Your task to perform on an android device: open a new tab in the chrome app Image 0: 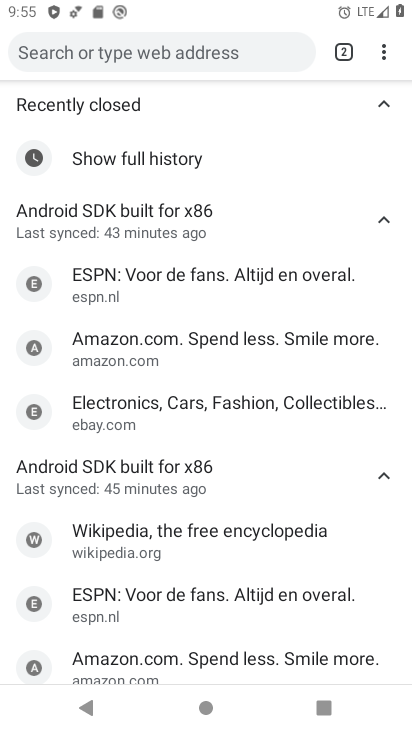
Step 0: press home button
Your task to perform on an android device: open a new tab in the chrome app Image 1: 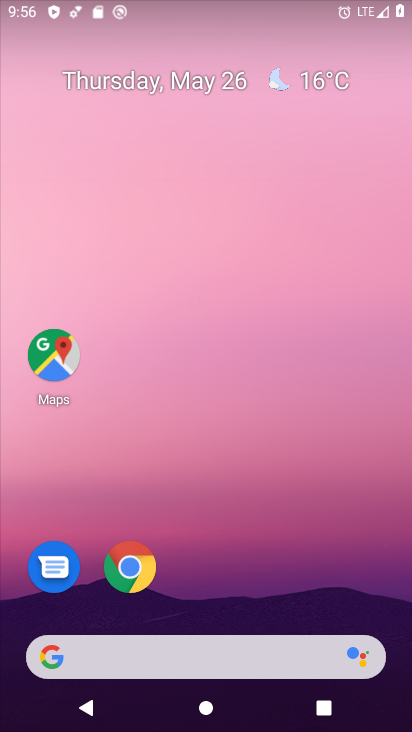
Step 1: click (130, 561)
Your task to perform on an android device: open a new tab in the chrome app Image 2: 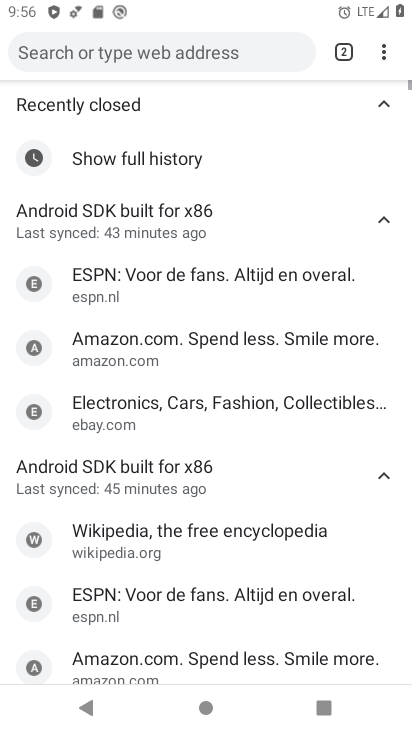
Step 2: click (382, 50)
Your task to perform on an android device: open a new tab in the chrome app Image 3: 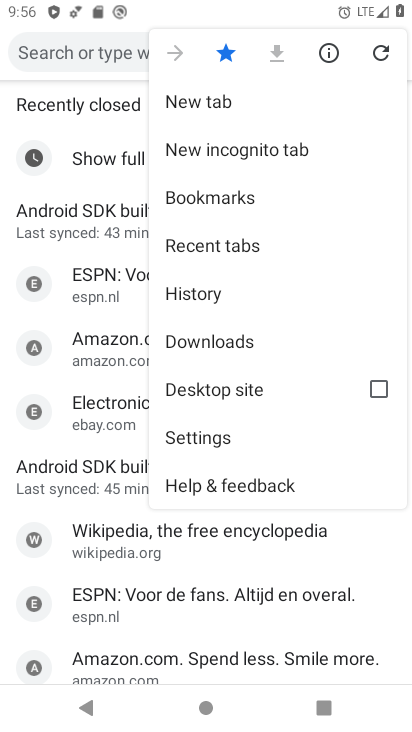
Step 3: click (199, 100)
Your task to perform on an android device: open a new tab in the chrome app Image 4: 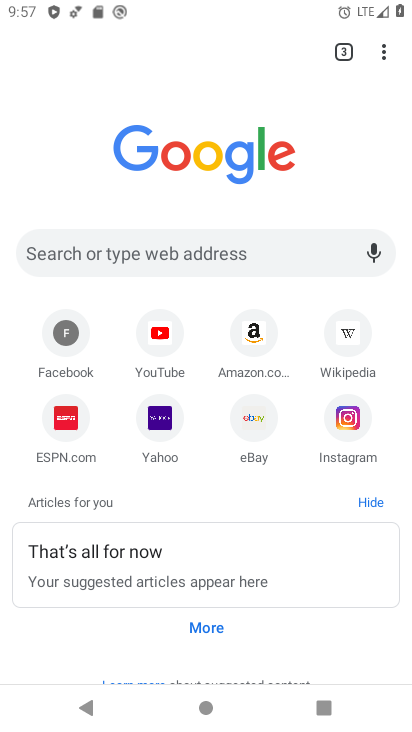
Step 4: task complete